Your task to perform on an android device: open app "ZOOM Cloud Meetings" Image 0: 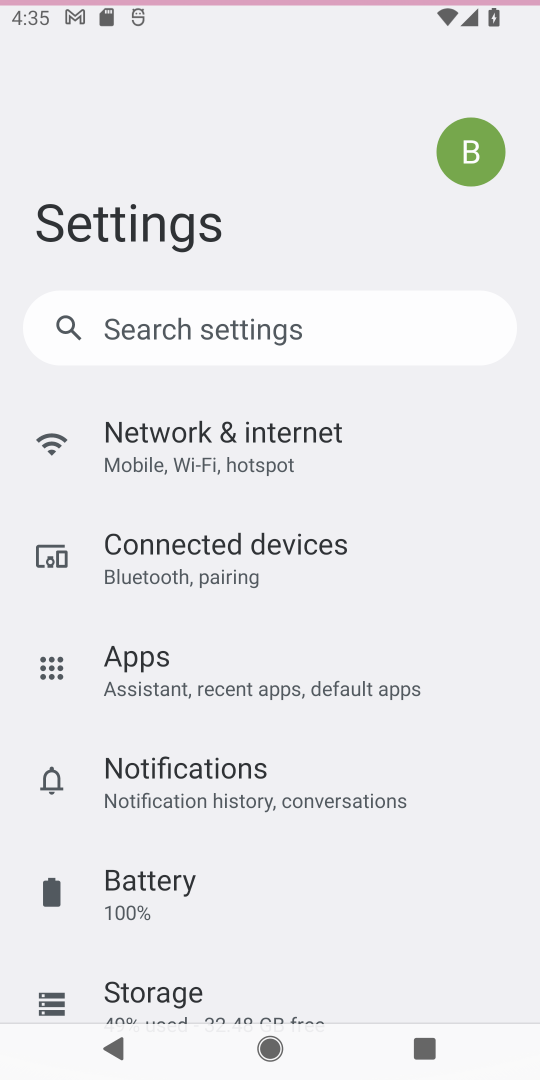
Step 0: click (37, 81)
Your task to perform on an android device: open app "ZOOM Cloud Meetings" Image 1: 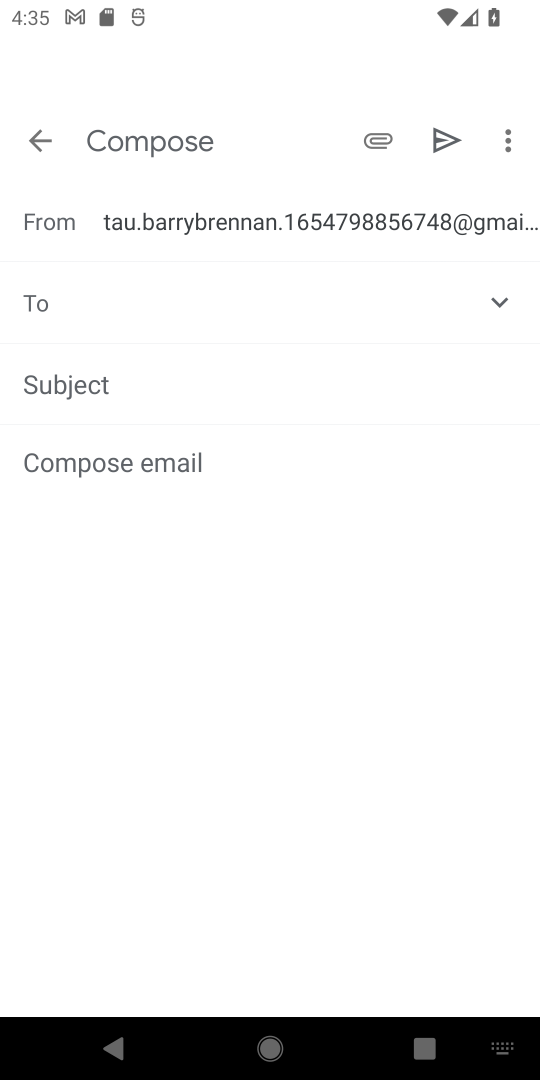
Step 1: click (51, 136)
Your task to perform on an android device: open app "ZOOM Cloud Meetings" Image 2: 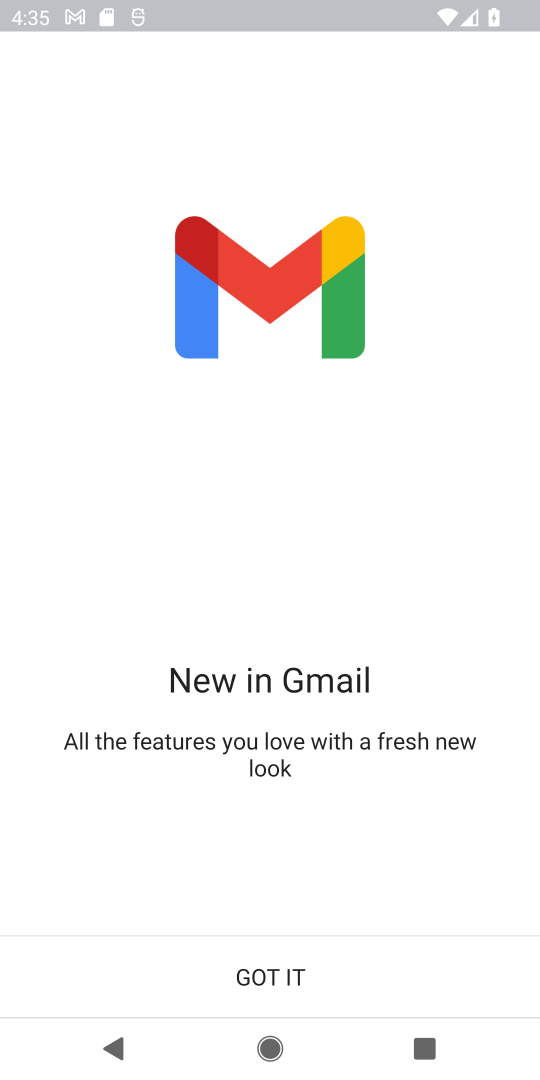
Step 2: press back button
Your task to perform on an android device: open app "ZOOM Cloud Meetings" Image 3: 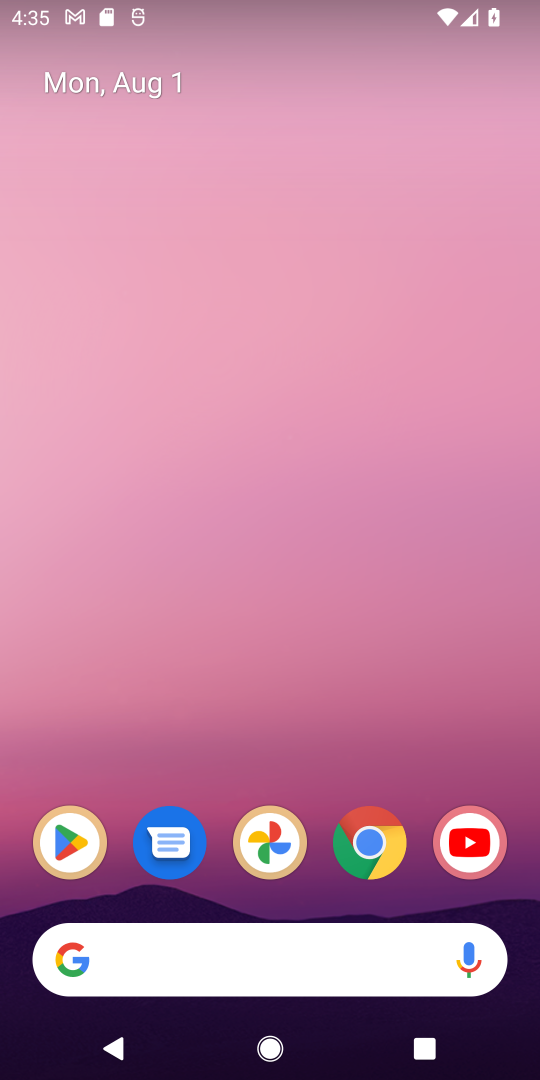
Step 3: drag from (326, 1019) to (261, 227)
Your task to perform on an android device: open app "ZOOM Cloud Meetings" Image 4: 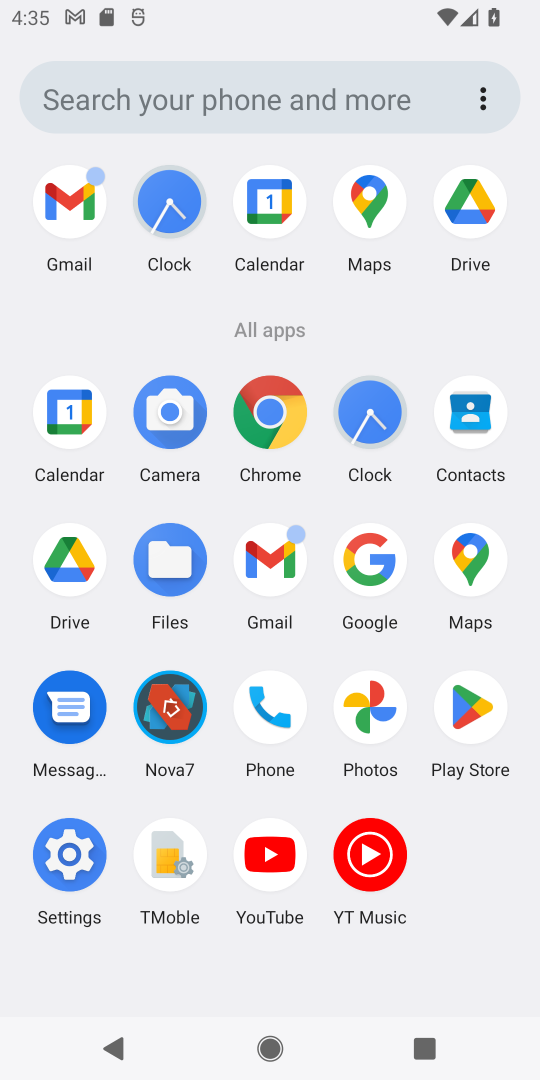
Step 4: click (468, 708)
Your task to perform on an android device: open app "ZOOM Cloud Meetings" Image 5: 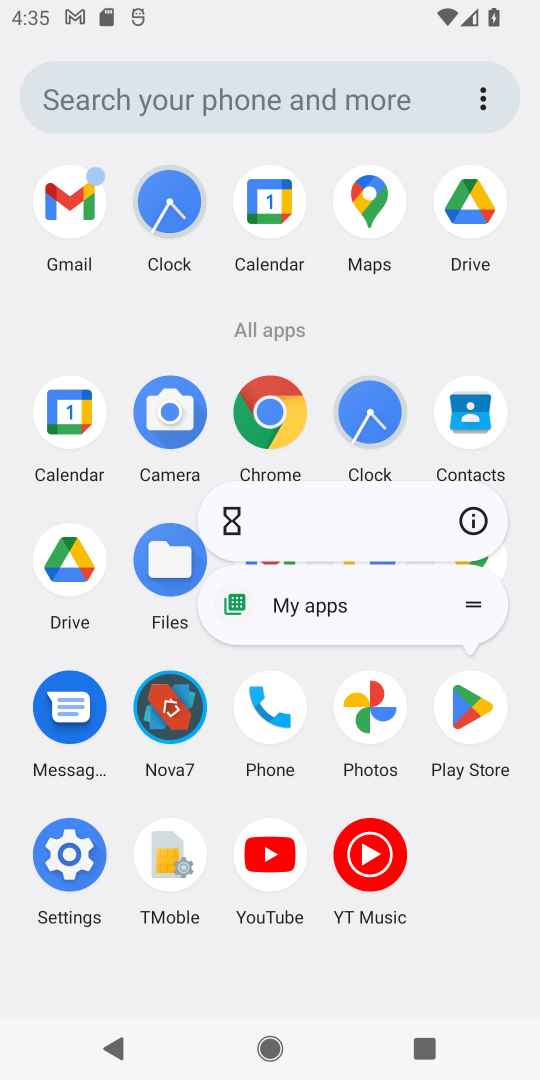
Step 5: click (467, 705)
Your task to perform on an android device: open app "ZOOM Cloud Meetings" Image 6: 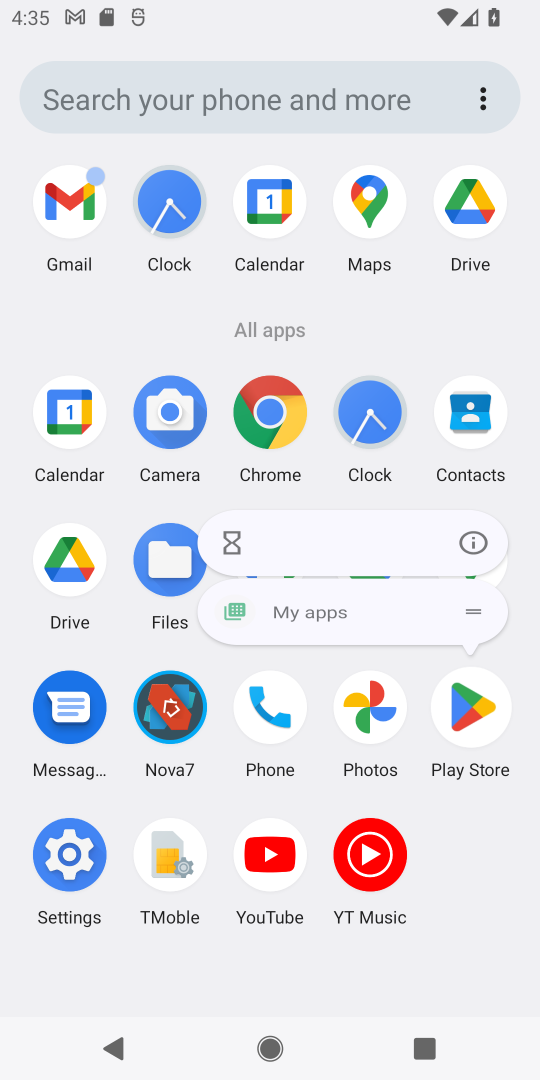
Step 6: click (467, 705)
Your task to perform on an android device: open app "ZOOM Cloud Meetings" Image 7: 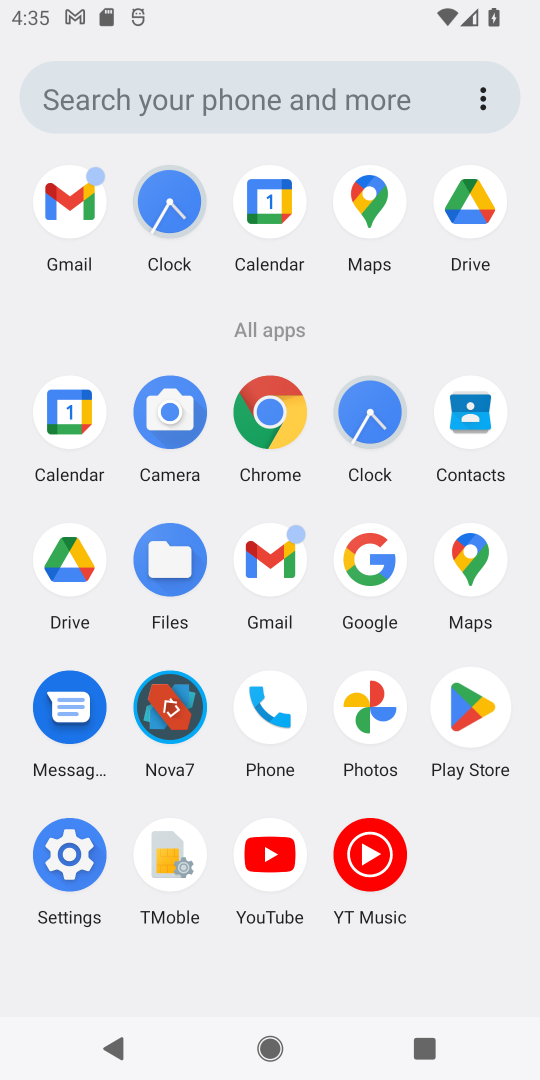
Step 7: click (467, 705)
Your task to perform on an android device: open app "ZOOM Cloud Meetings" Image 8: 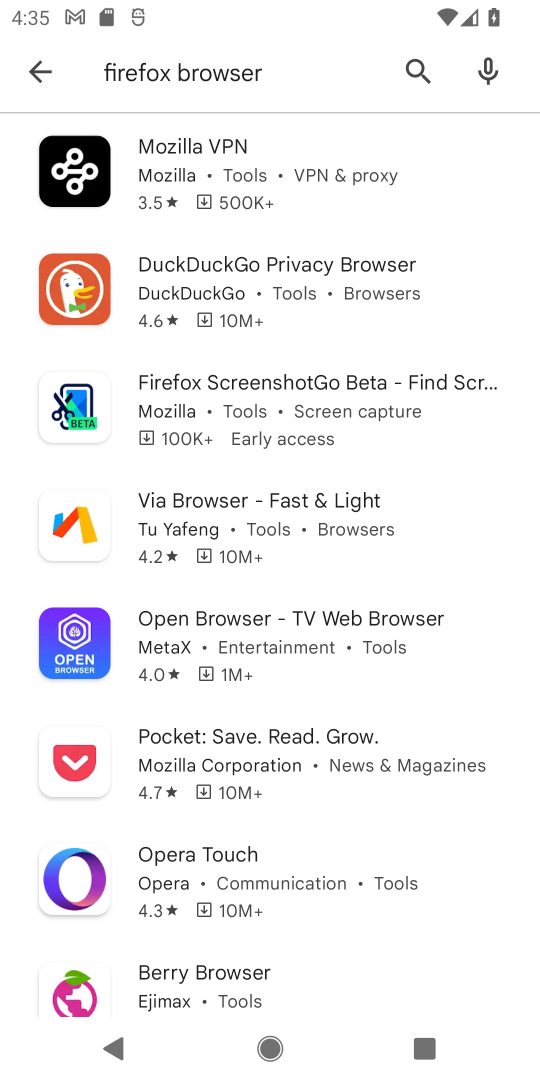
Step 8: click (466, 705)
Your task to perform on an android device: open app "ZOOM Cloud Meetings" Image 9: 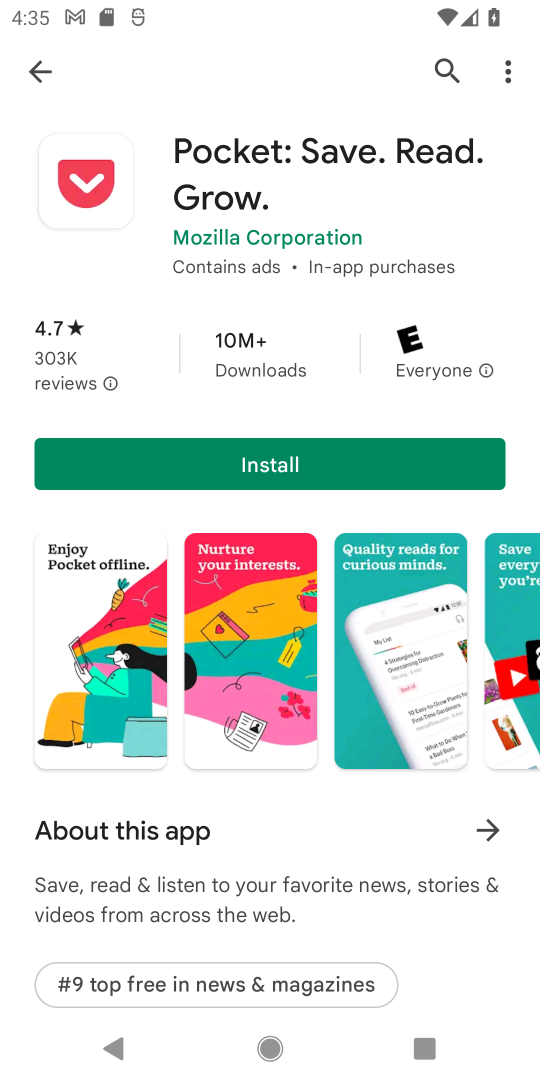
Step 9: click (33, 71)
Your task to perform on an android device: open app "ZOOM Cloud Meetings" Image 10: 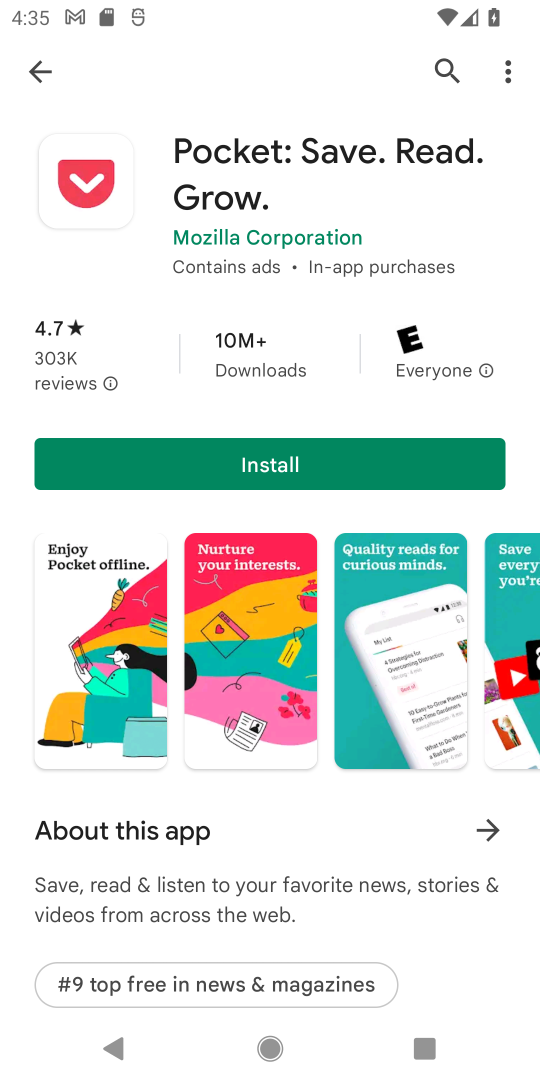
Step 10: click (33, 71)
Your task to perform on an android device: open app "ZOOM Cloud Meetings" Image 11: 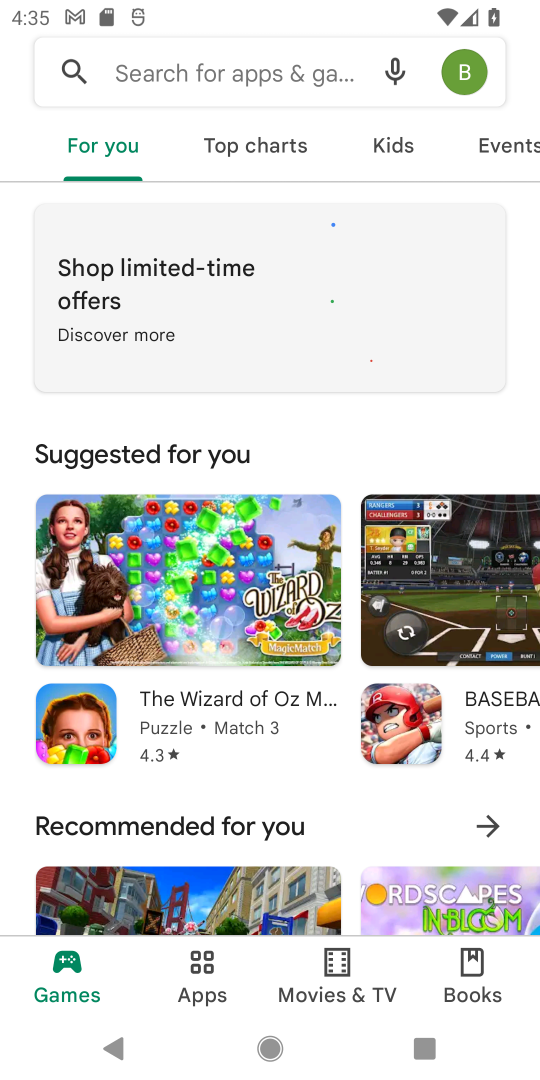
Step 11: click (160, 63)
Your task to perform on an android device: open app "ZOOM Cloud Meetings" Image 12: 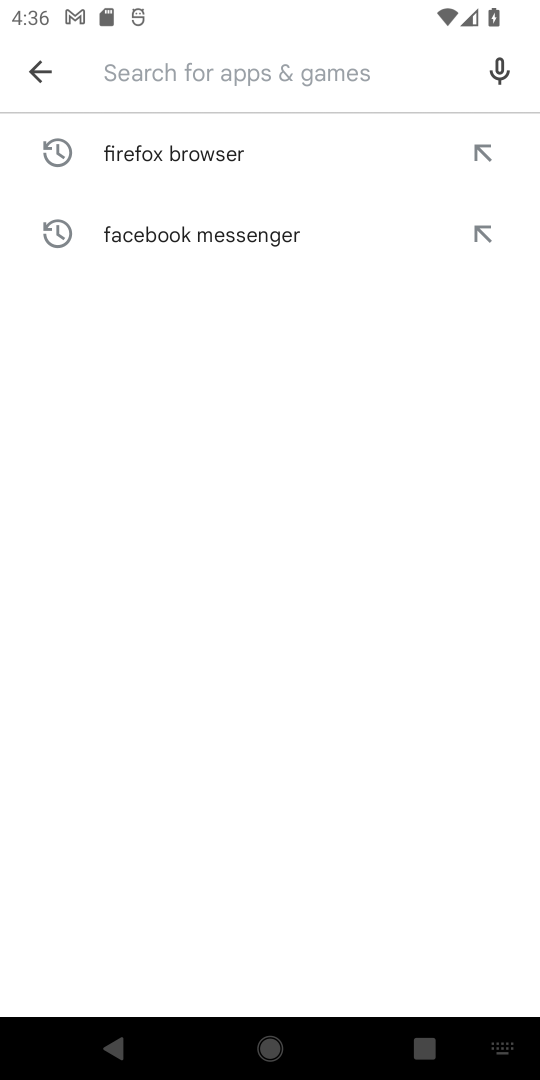
Step 12: type "ZOOM Cloud Meetings"
Your task to perform on an android device: open app "ZOOM Cloud Meetings" Image 13: 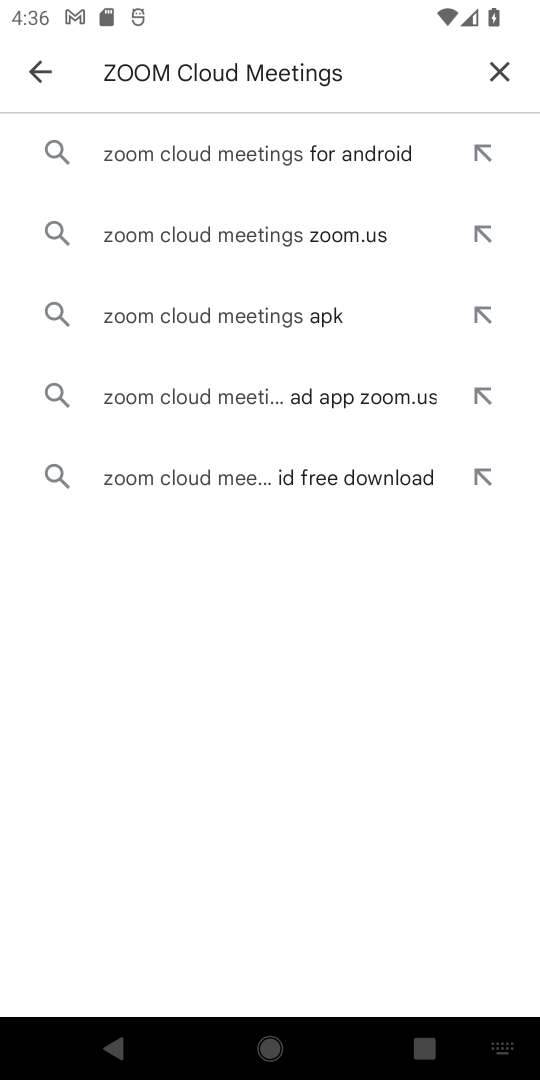
Step 13: click (253, 232)
Your task to perform on an android device: open app "ZOOM Cloud Meetings" Image 14: 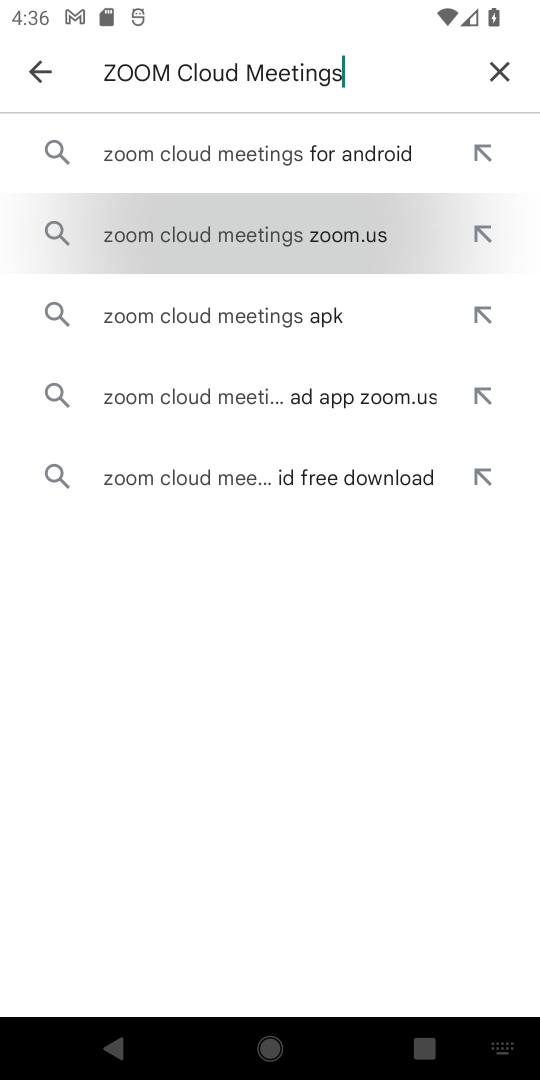
Step 14: click (253, 231)
Your task to perform on an android device: open app "ZOOM Cloud Meetings" Image 15: 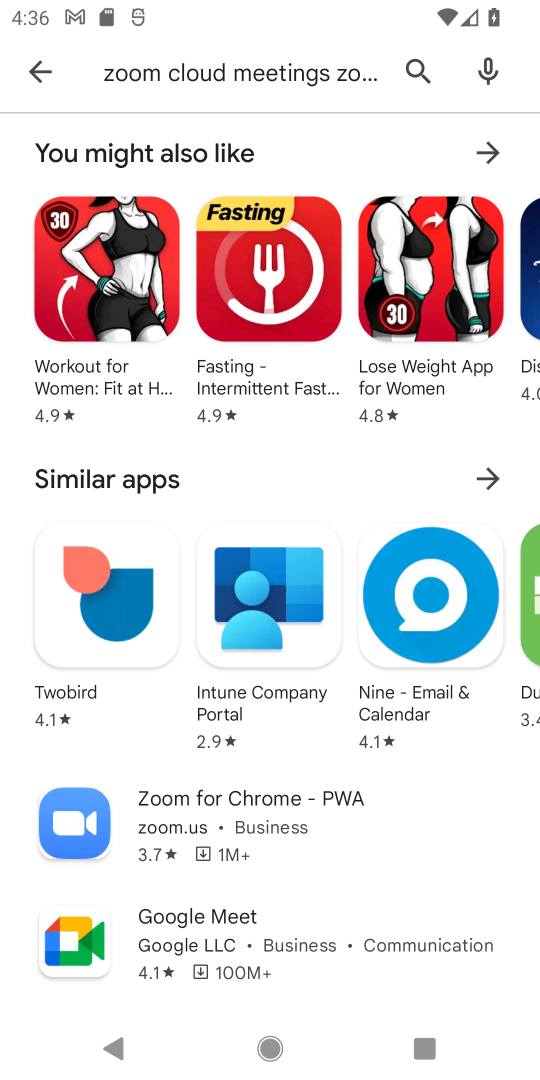
Step 15: drag from (220, 880) to (199, 510)
Your task to perform on an android device: open app "ZOOM Cloud Meetings" Image 16: 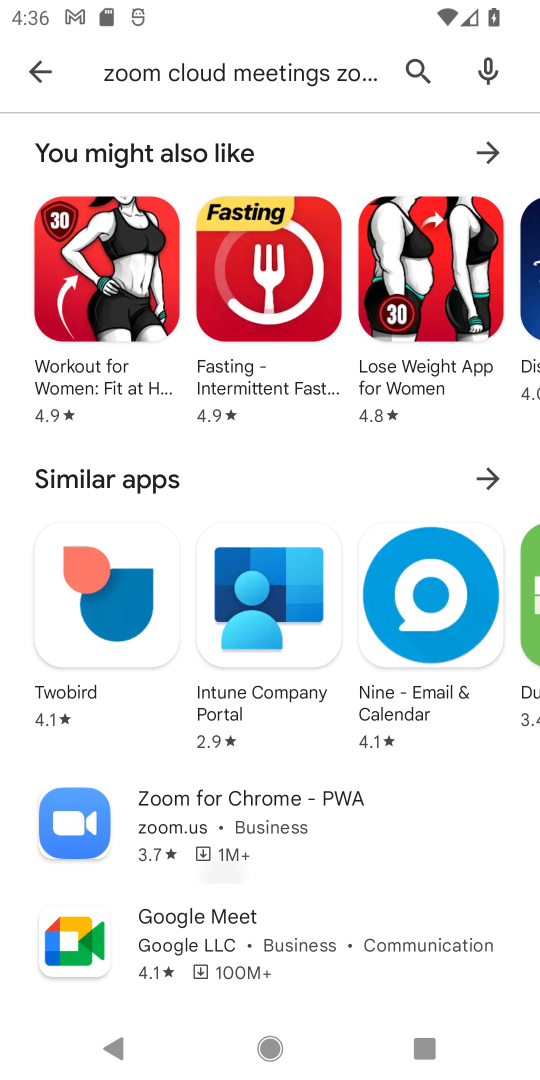
Step 16: click (290, 354)
Your task to perform on an android device: open app "ZOOM Cloud Meetings" Image 17: 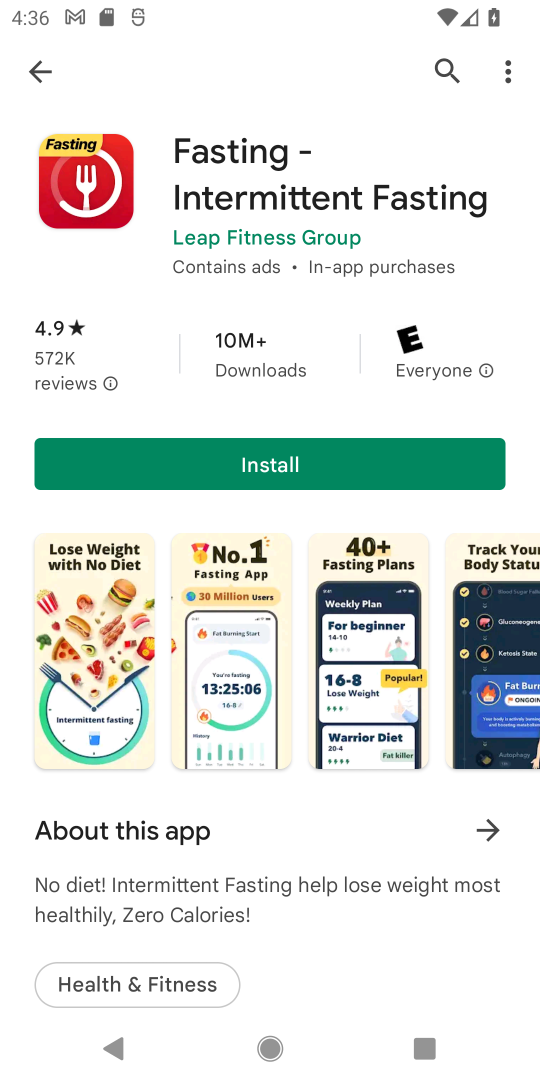
Step 17: click (56, 68)
Your task to perform on an android device: open app "ZOOM Cloud Meetings" Image 18: 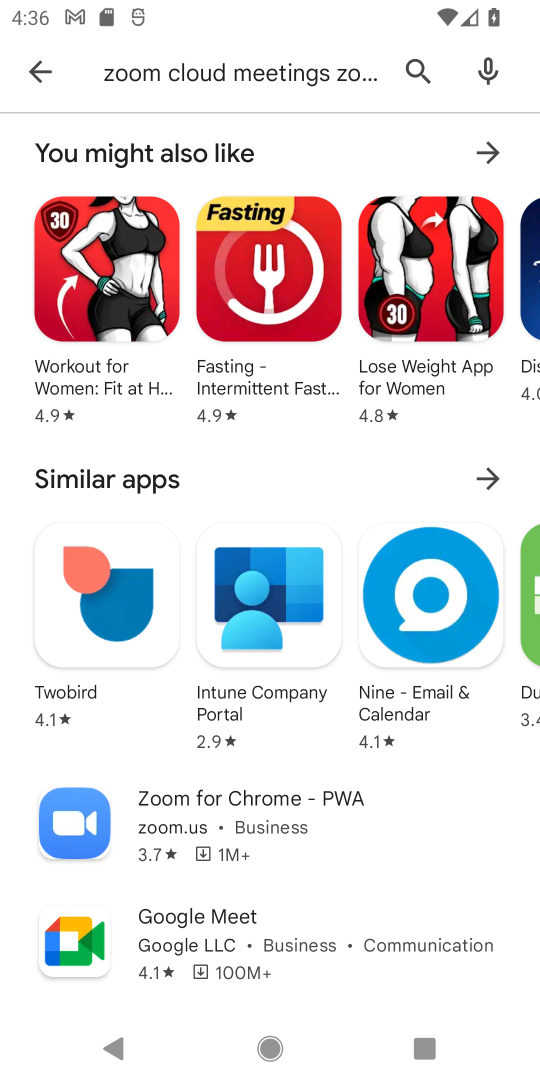
Step 18: click (189, 805)
Your task to perform on an android device: open app "ZOOM Cloud Meetings" Image 19: 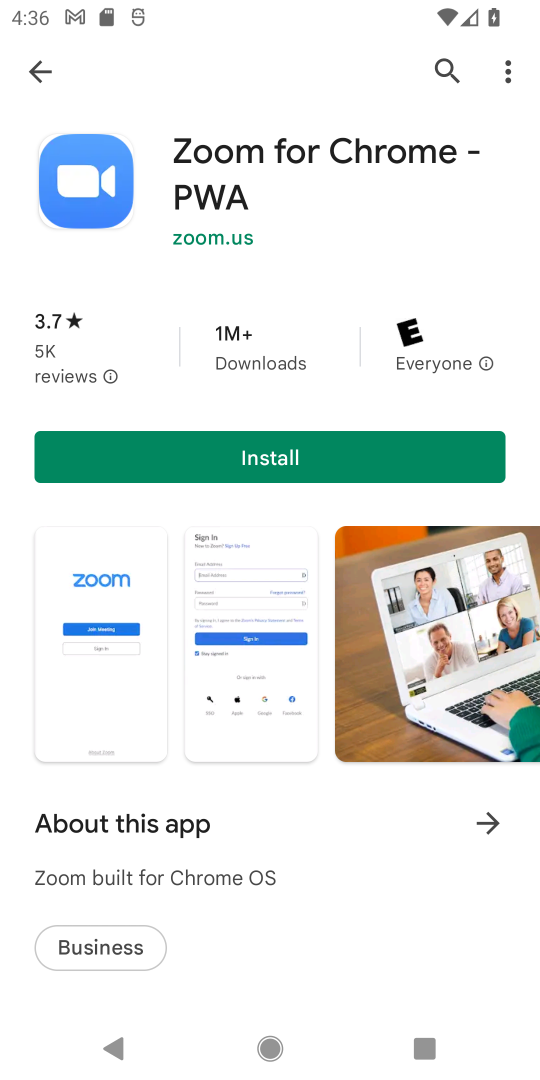
Step 19: task complete